Your task to perform on an android device: Go to ESPN.com Image 0: 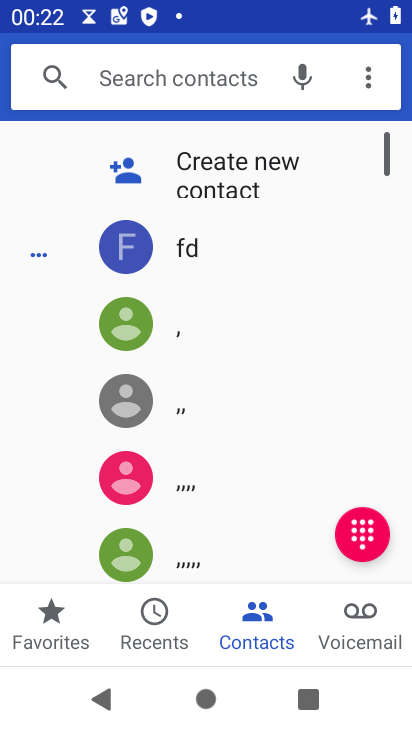
Step 0: press home button
Your task to perform on an android device: Go to ESPN.com Image 1: 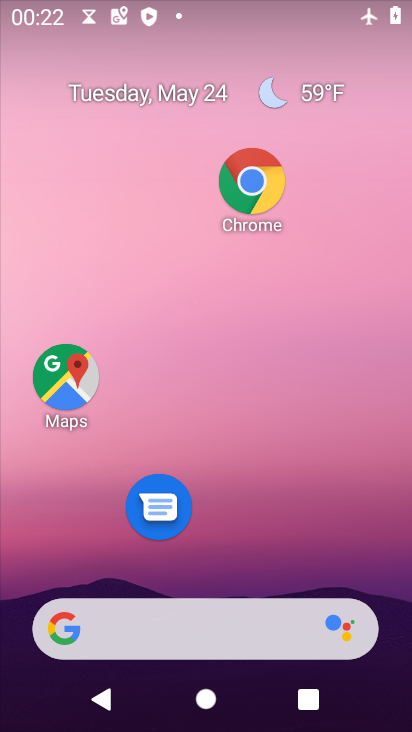
Step 1: click (255, 188)
Your task to perform on an android device: Go to ESPN.com Image 2: 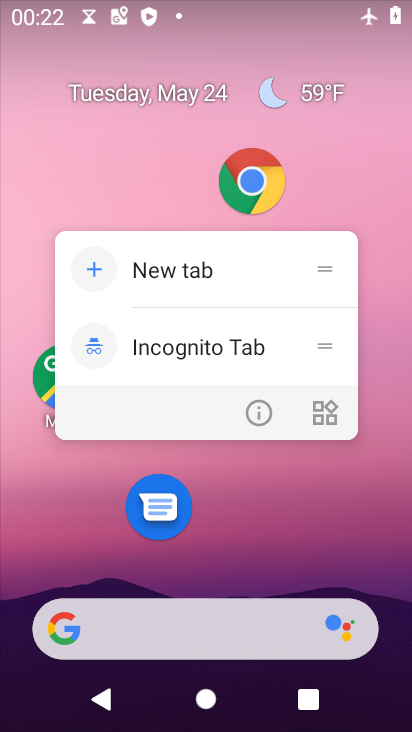
Step 2: click (240, 178)
Your task to perform on an android device: Go to ESPN.com Image 3: 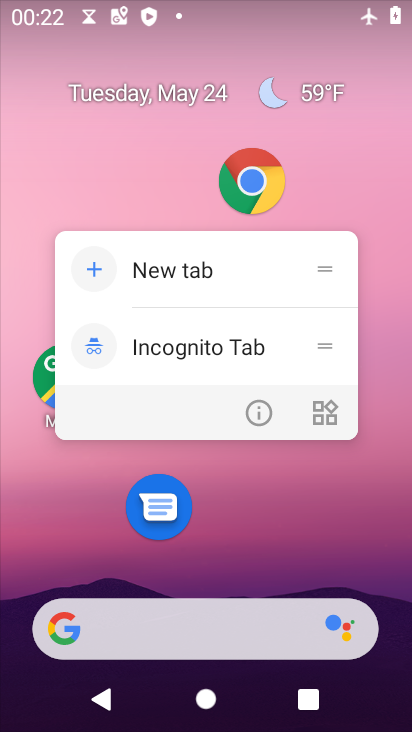
Step 3: click (235, 173)
Your task to perform on an android device: Go to ESPN.com Image 4: 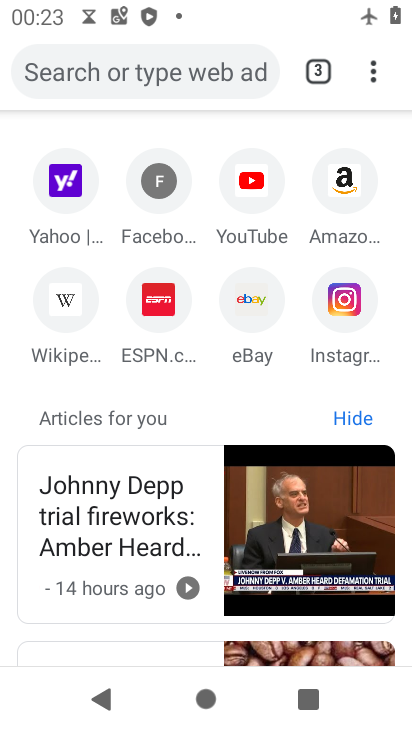
Step 4: click (164, 294)
Your task to perform on an android device: Go to ESPN.com Image 5: 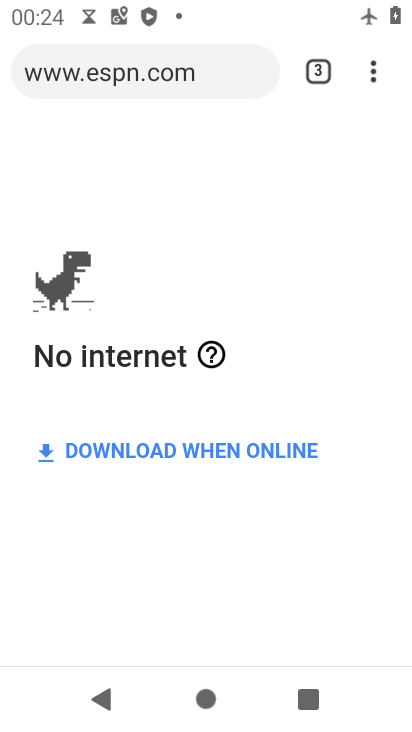
Step 5: task complete